Your task to perform on an android device: toggle notification dots Image 0: 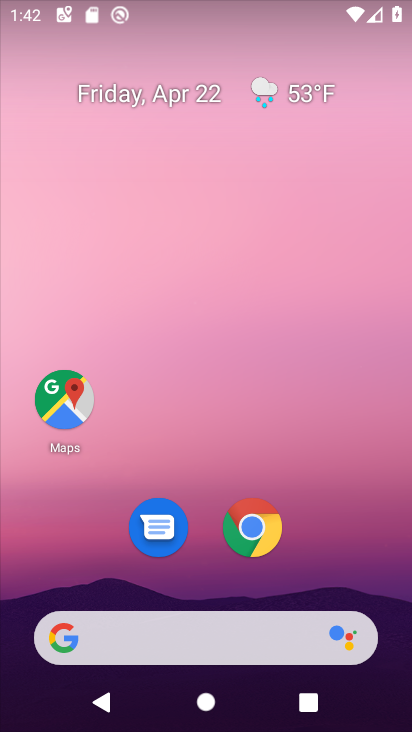
Step 0: drag from (328, 579) to (294, 132)
Your task to perform on an android device: toggle notification dots Image 1: 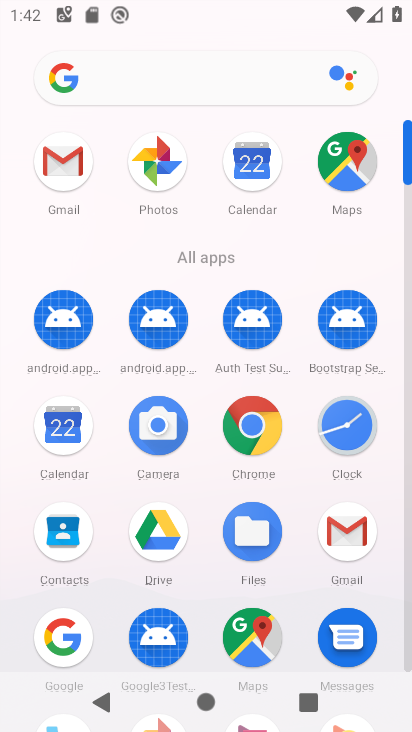
Step 1: drag from (197, 278) to (204, 101)
Your task to perform on an android device: toggle notification dots Image 2: 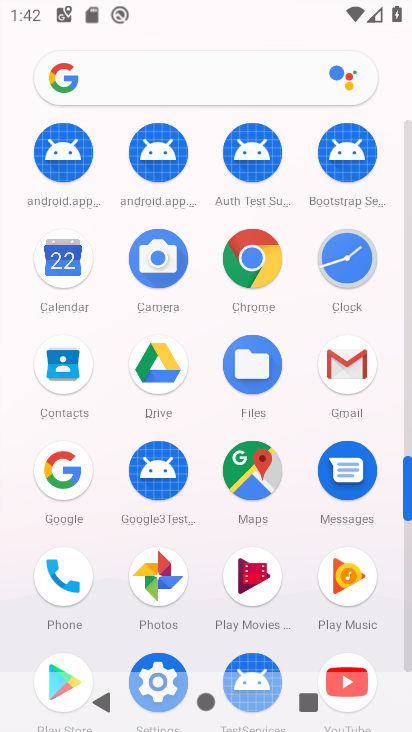
Step 2: click (157, 658)
Your task to perform on an android device: toggle notification dots Image 3: 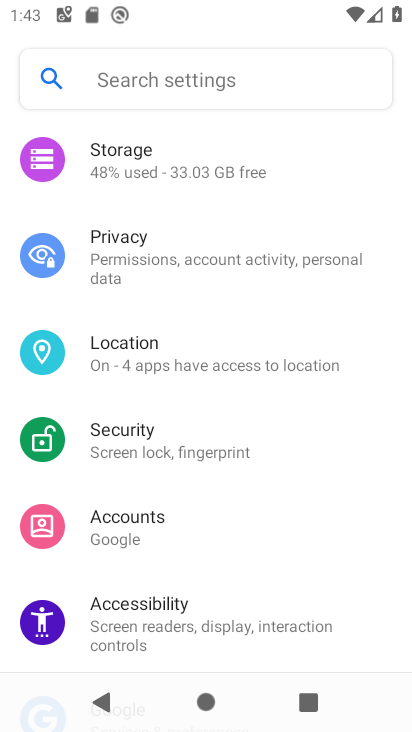
Step 3: drag from (202, 562) to (167, 201)
Your task to perform on an android device: toggle notification dots Image 4: 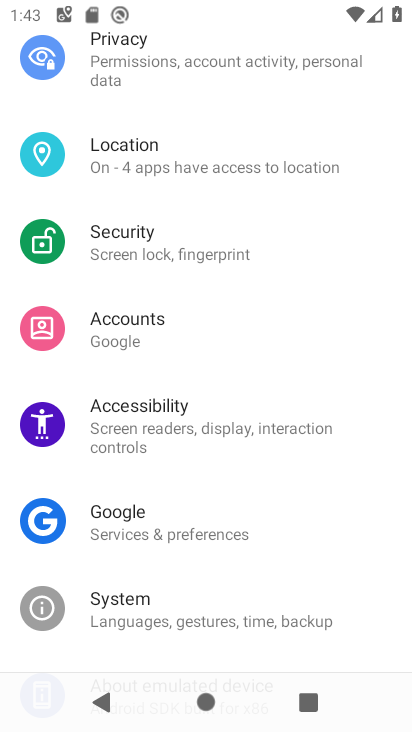
Step 4: drag from (242, 136) to (196, 666)
Your task to perform on an android device: toggle notification dots Image 5: 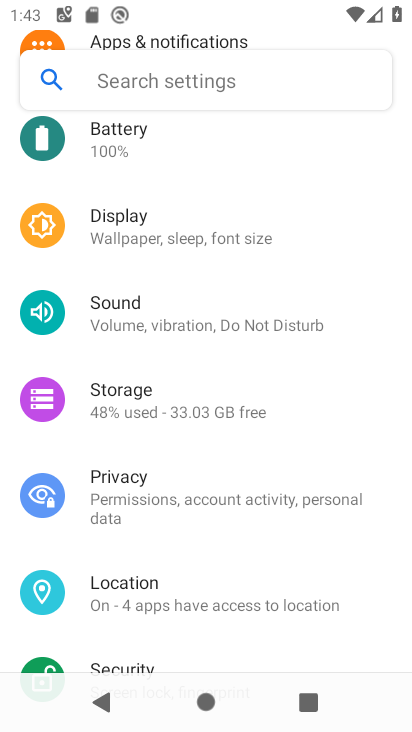
Step 5: drag from (153, 208) to (122, 580)
Your task to perform on an android device: toggle notification dots Image 6: 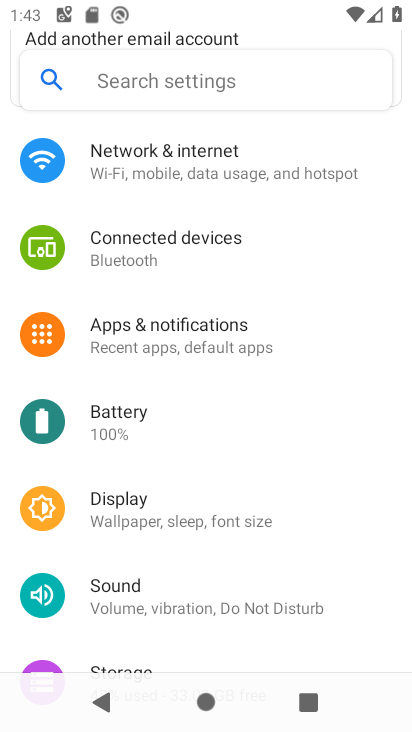
Step 6: click (198, 333)
Your task to perform on an android device: toggle notification dots Image 7: 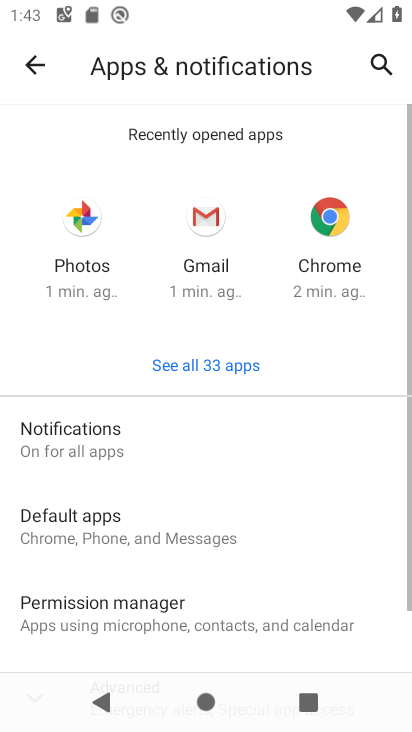
Step 7: click (155, 436)
Your task to perform on an android device: toggle notification dots Image 8: 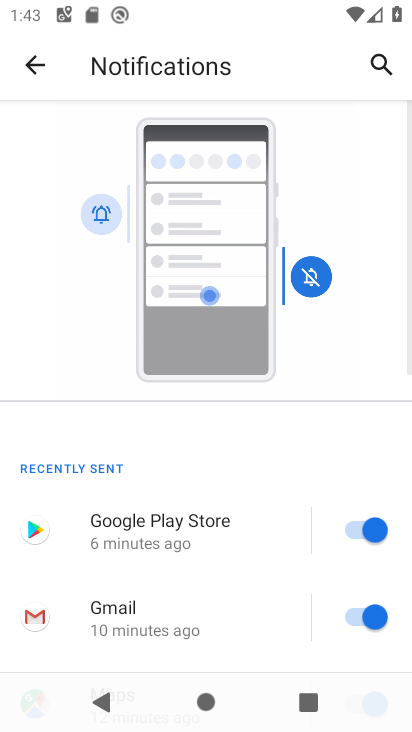
Step 8: drag from (168, 602) to (189, 107)
Your task to perform on an android device: toggle notification dots Image 9: 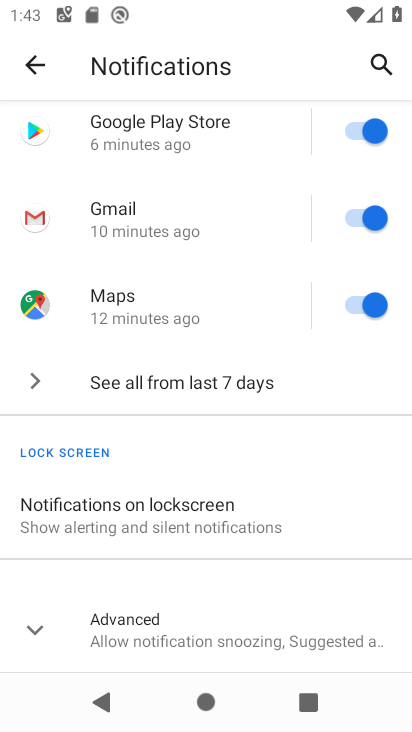
Step 9: click (161, 617)
Your task to perform on an android device: toggle notification dots Image 10: 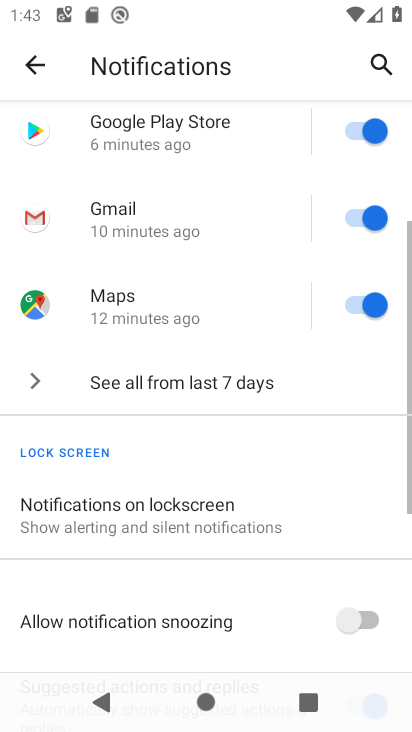
Step 10: drag from (165, 609) to (165, 200)
Your task to perform on an android device: toggle notification dots Image 11: 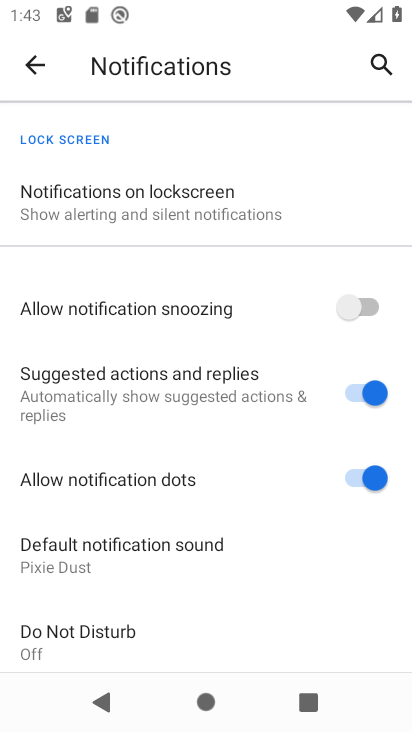
Step 11: click (372, 489)
Your task to perform on an android device: toggle notification dots Image 12: 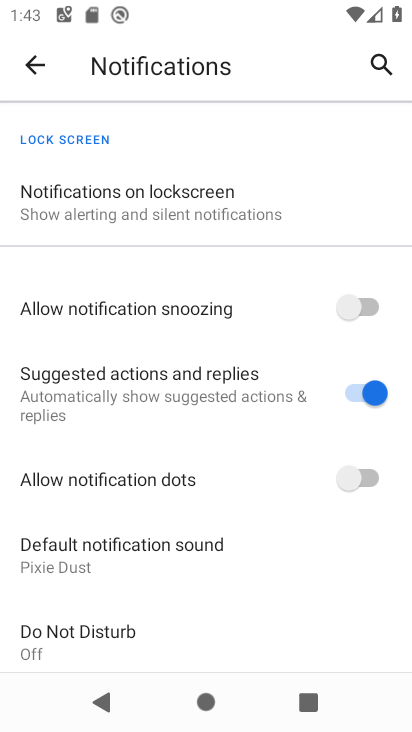
Step 12: task complete